Your task to perform on an android device: turn off notifications in google photos Image 0: 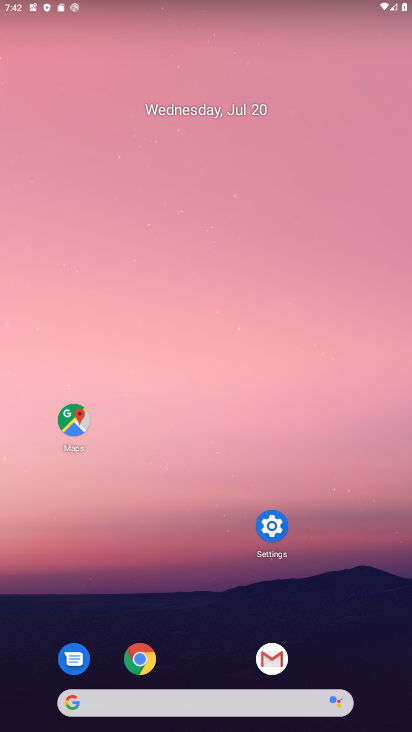
Step 0: drag from (235, 695) to (172, 224)
Your task to perform on an android device: turn off notifications in google photos Image 1: 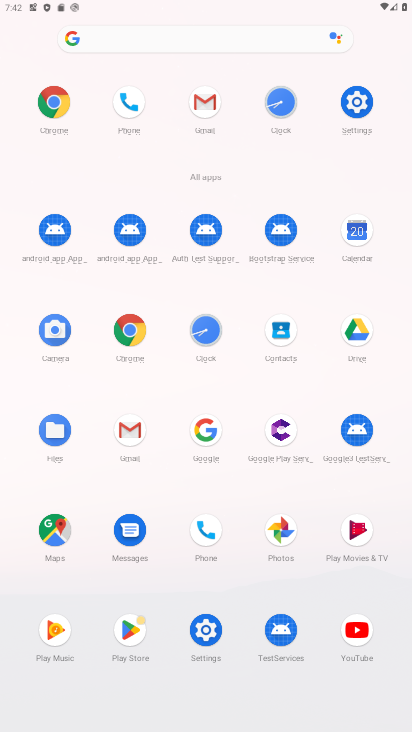
Step 1: click (277, 535)
Your task to perform on an android device: turn off notifications in google photos Image 2: 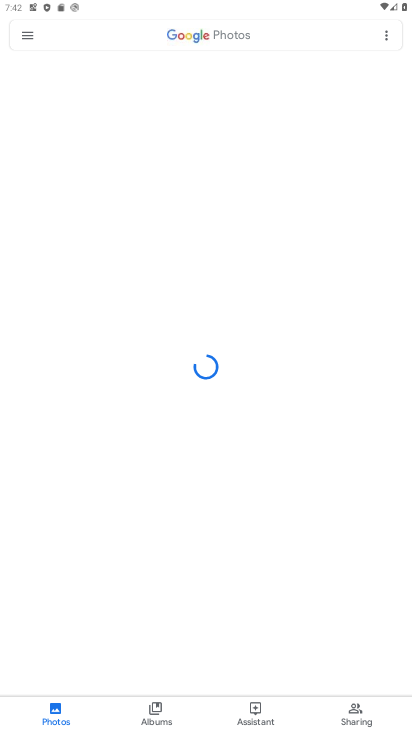
Step 2: click (19, 46)
Your task to perform on an android device: turn off notifications in google photos Image 3: 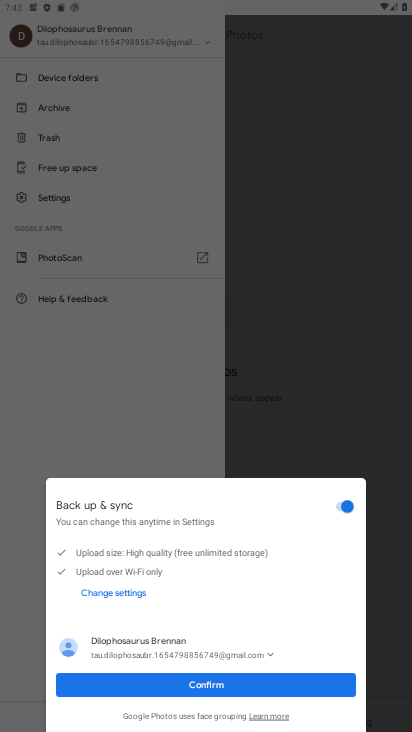
Step 3: click (215, 681)
Your task to perform on an android device: turn off notifications in google photos Image 4: 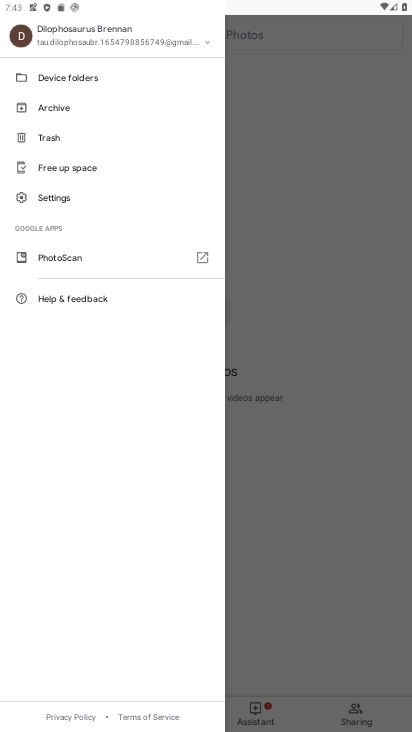
Step 4: click (55, 187)
Your task to perform on an android device: turn off notifications in google photos Image 5: 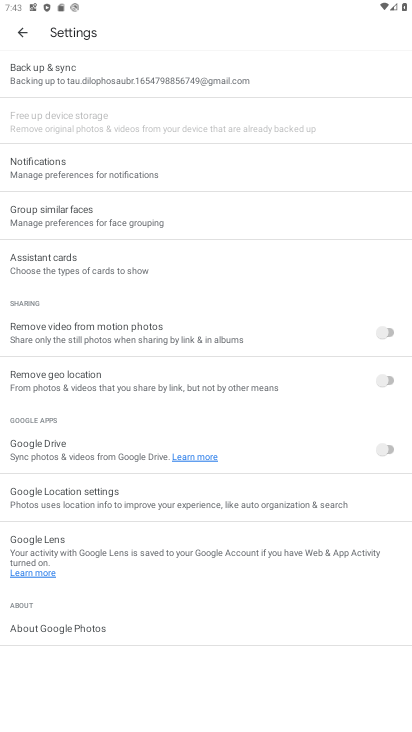
Step 5: click (70, 161)
Your task to perform on an android device: turn off notifications in google photos Image 6: 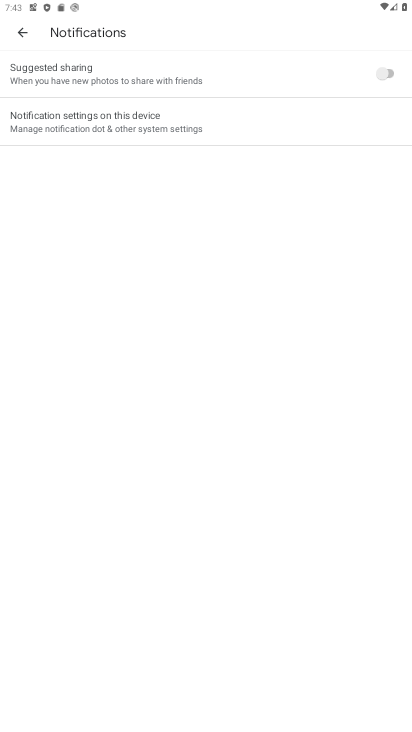
Step 6: click (245, 112)
Your task to perform on an android device: turn off notifications in google photos Image 7: 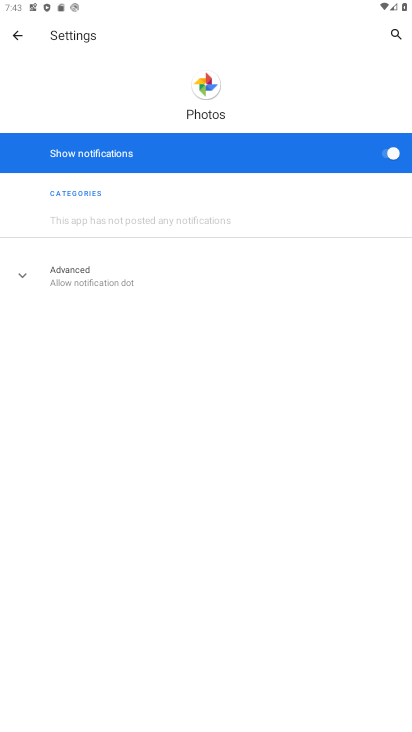
Step 7: click (383, 169)
Your task to perform on an android device: turn off notifications in google photos Image 8: 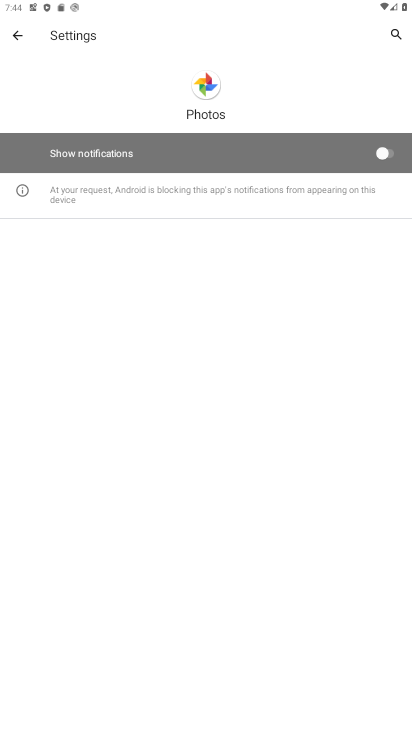
Step 8: task complete